Your task to perform on an android device: Open notification settings Image 0: 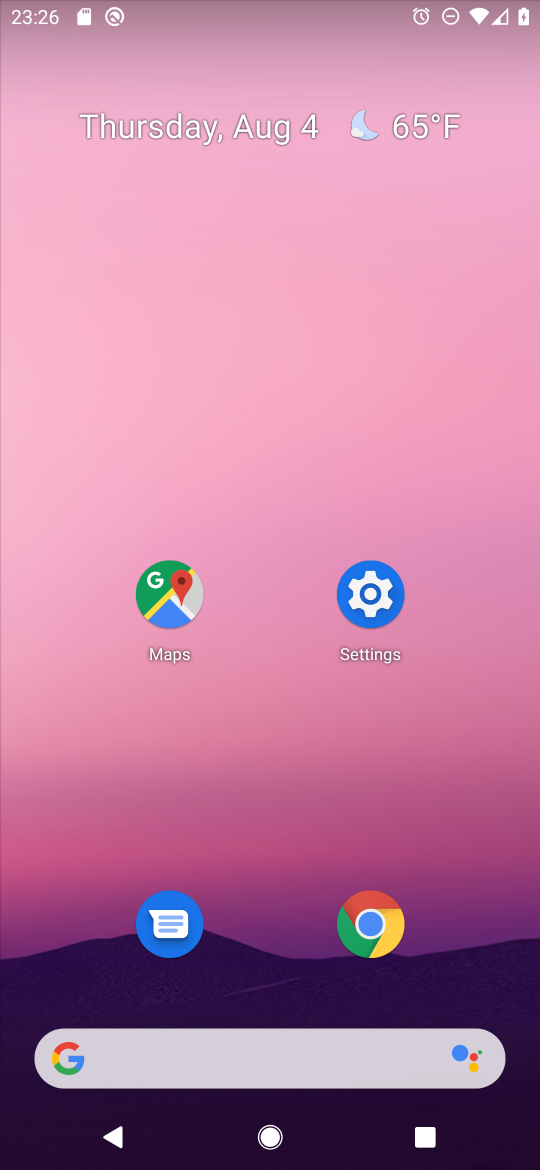
Step 0: click (367, 589)
Your task to perform on an android device: Open notification settings Image 1: 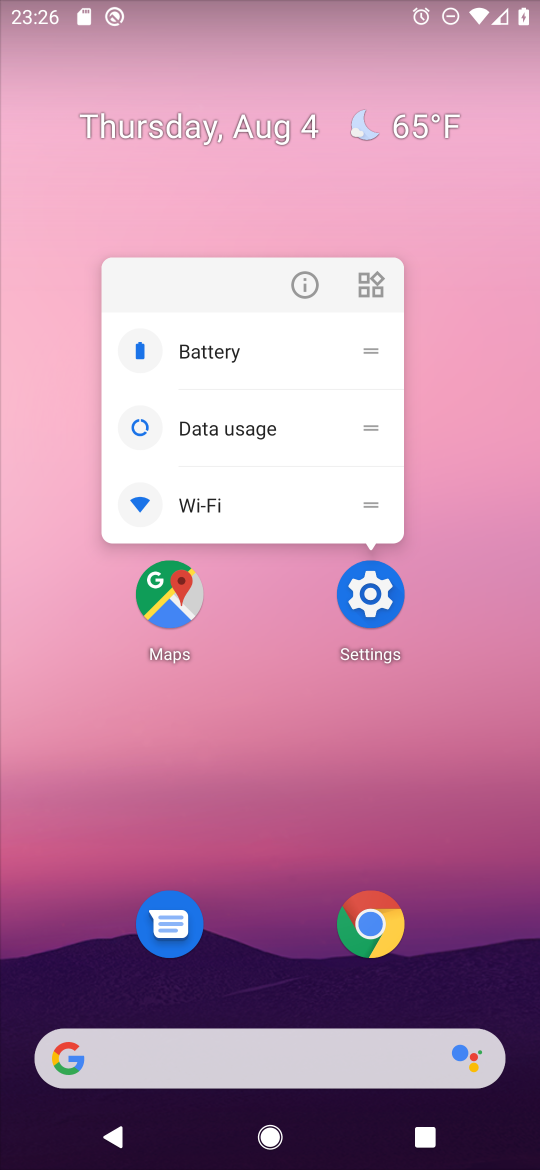
Step 1: click (367, 588)
Your task to perform on an android device: Open notification settings Image 2: 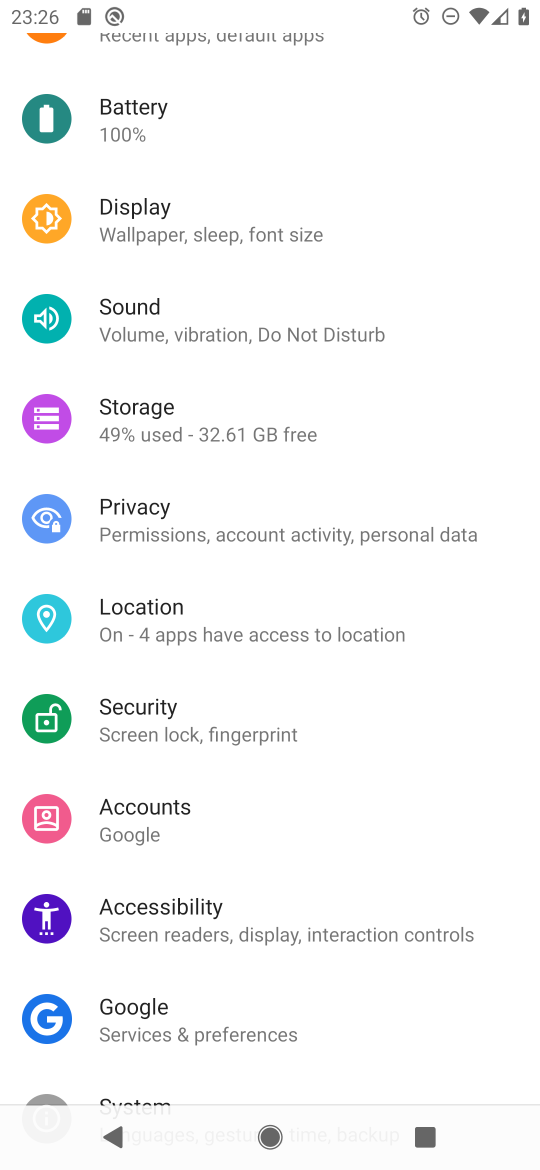
Step 2: drag from (406, 192) to (432, 917)
Your task to perform on an android device: Open notification settings Image 3: 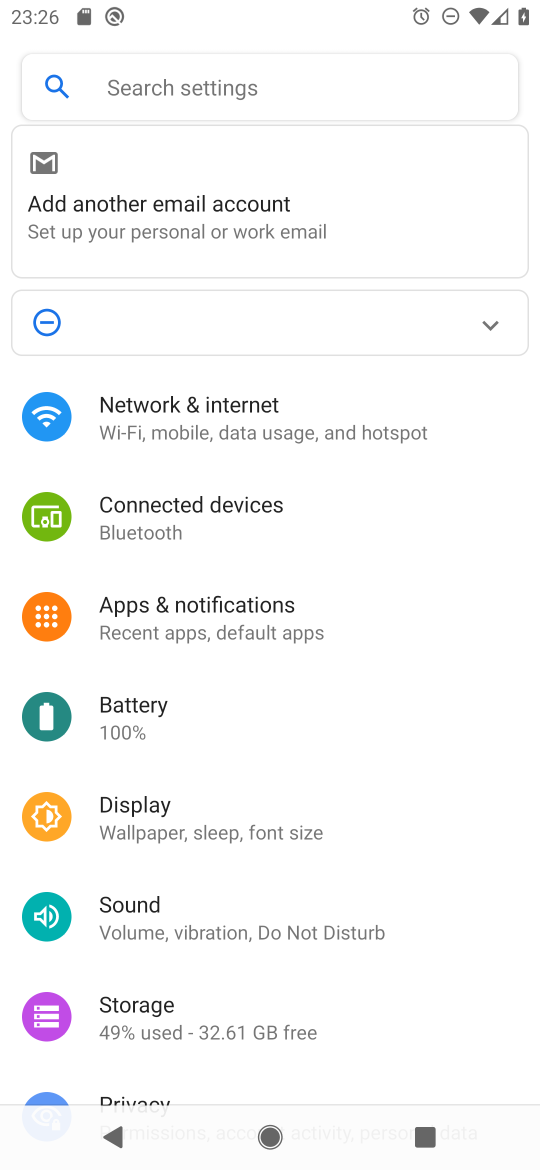
Step 3: click (197, 612)
Your task to perform on an android device: Open notification settings Image 4: 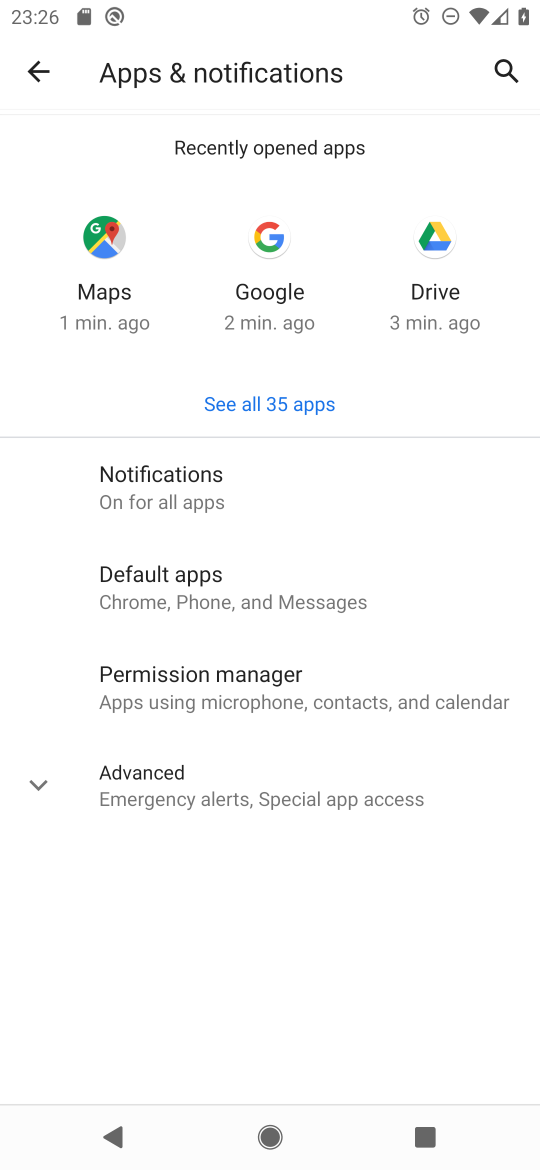
Step 4: click (149, 502)
Your task to perform on an android device: Open notification settings Image 5: 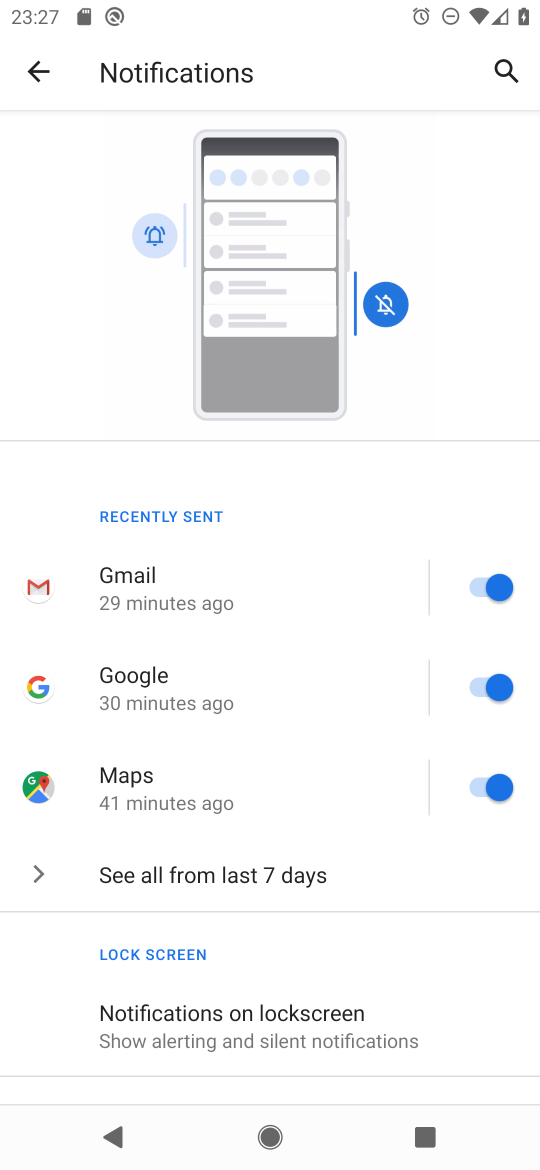
Step 5: task complete